Your task to perform on an android device: Open network settings Image 0: 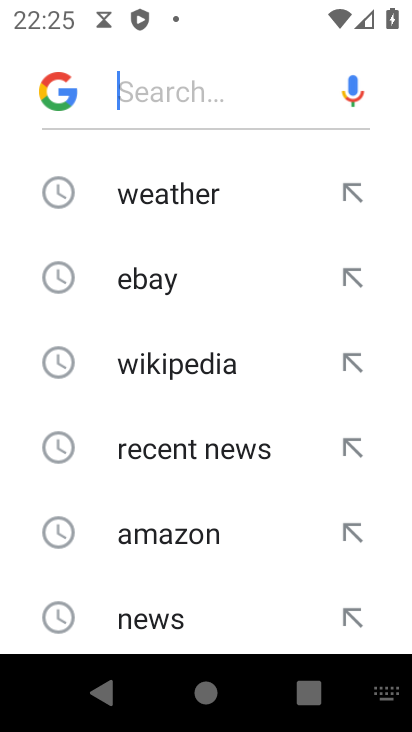
Step 0: press home button
Your task to perform on an android device: Open network settings Image 1: 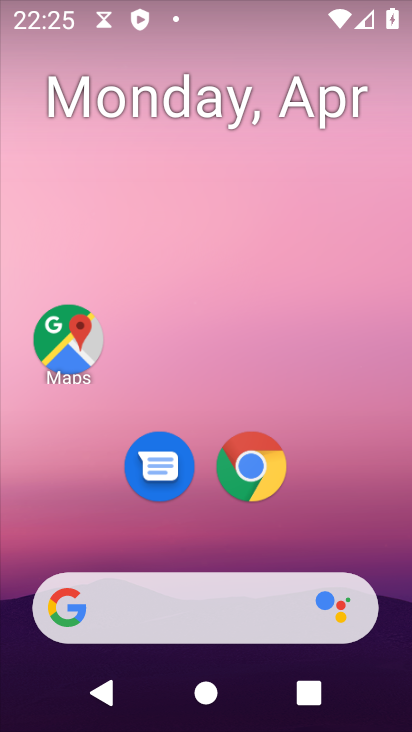
Step 1: drag from (315, 516) to (336, 163)
Your task to perform on an android device: Open network settings Image 2: 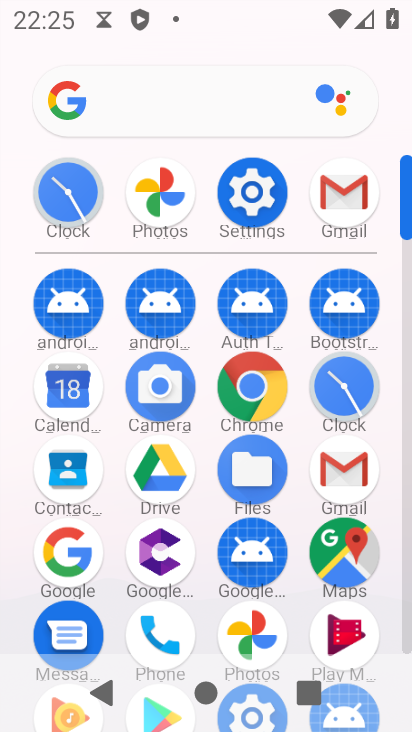
Step 2: click (246, 198)
Your task to perform on an android device: Open network settings Image 3: 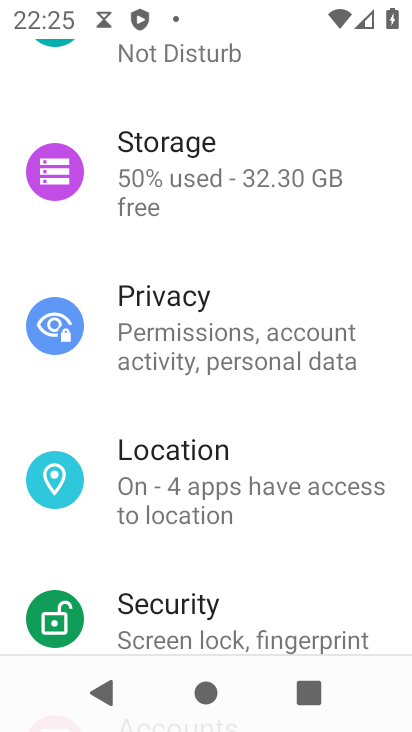
Step 3: drag from (202, 244) to (219, 446)
Your task to perform on an android device: Open network settings Image 4: 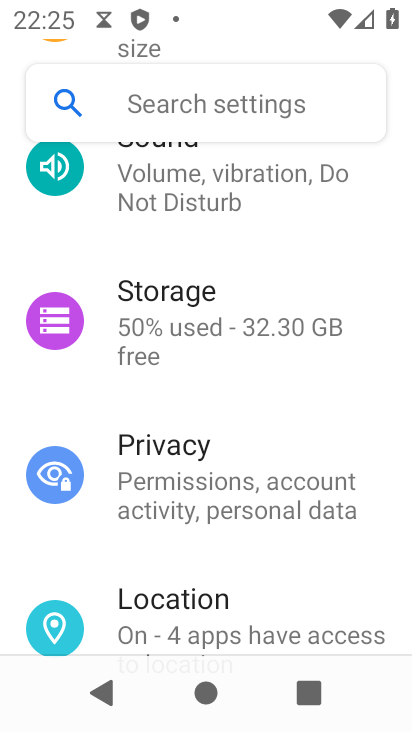
Step 4: drag from (198, 244) to (222, 521)
Your task to perform on an android device: Open network settings Image 5: 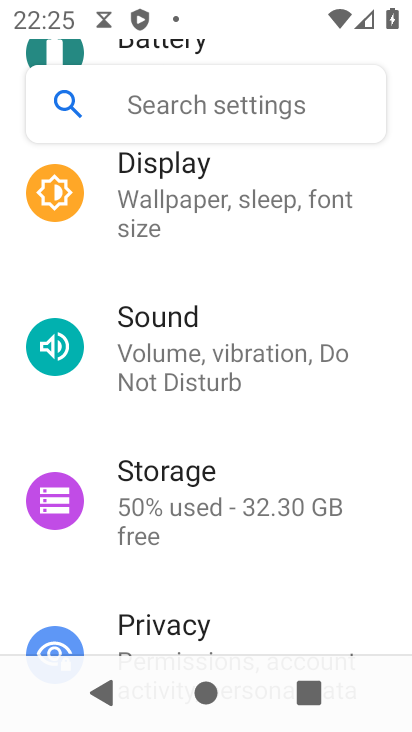
Step 5: drag from (192, 257) to (189, 556)
Your task to perform on an android device: Open network settings Image 6: 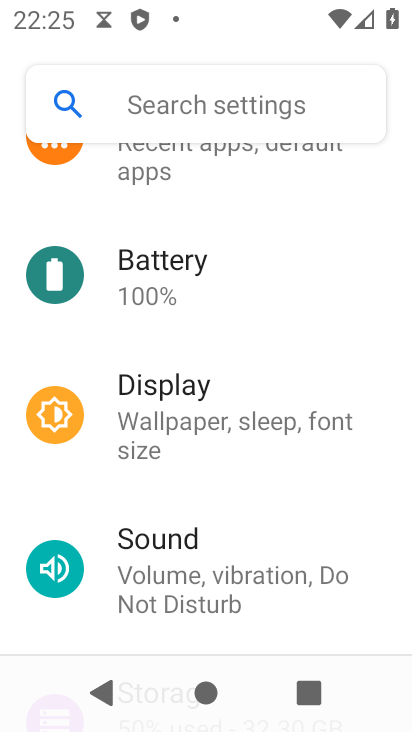
Step 6: drag from (182, 327) to (207, 594)
Your task to perform on an android device: Open network settings Image 7: 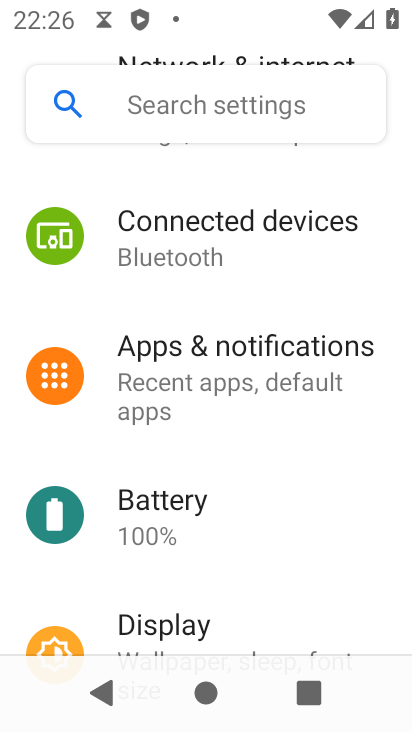
Step 7: drag from (252, 575) to (236, 238)
Your task to perform on an android device: Open network settings Image 8: 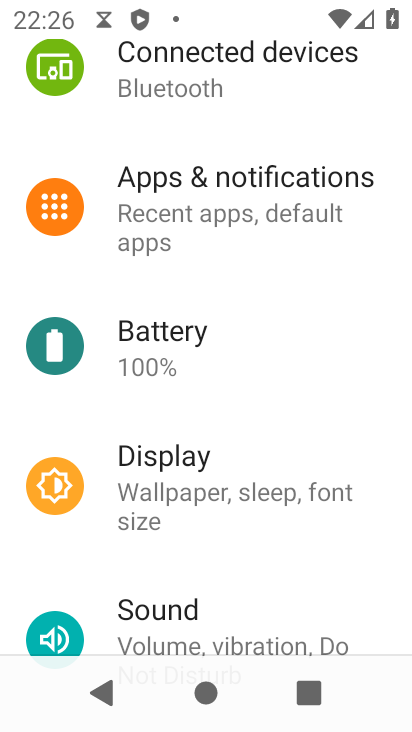
Step 8: drag from (218, 423) to (242, 187)
Your task to perform on an android device: Open network settings Image 9: 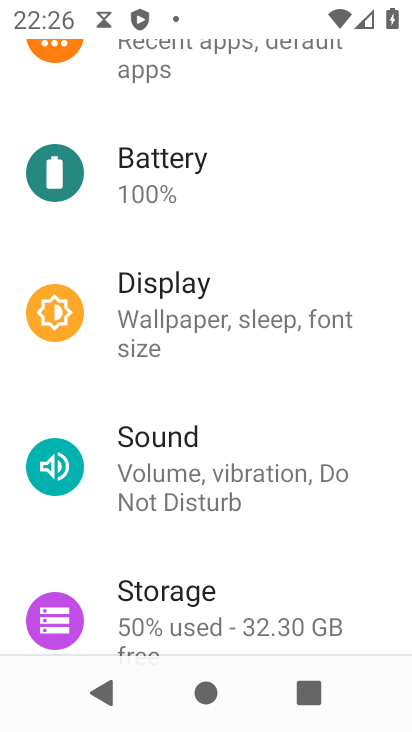
Step 9: drag from (194, 393) to (207, 149)
Your task to perform on an android device: Open network settings Image 10: 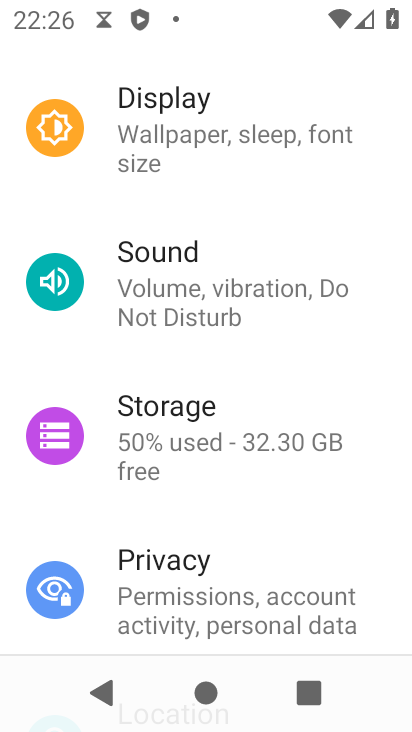
Step 10: drag from (173, 529) to (205, 229)
Your task to perform on an android device: Open network settings Image 11: 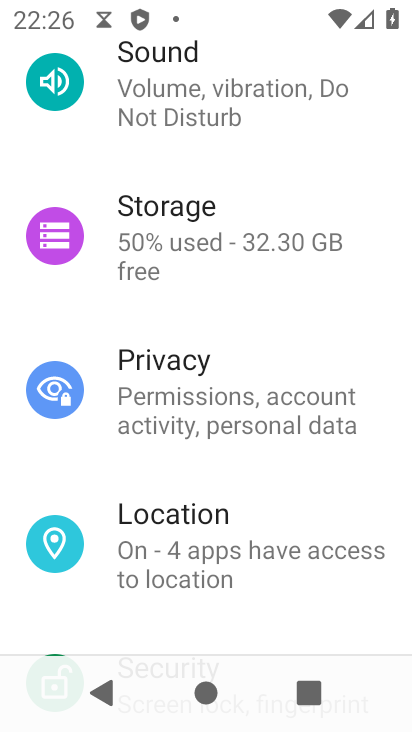
Step 11: drag from (168, 470) to (213, 197)
Your task to perform on an android device: Open network settings Image 12: 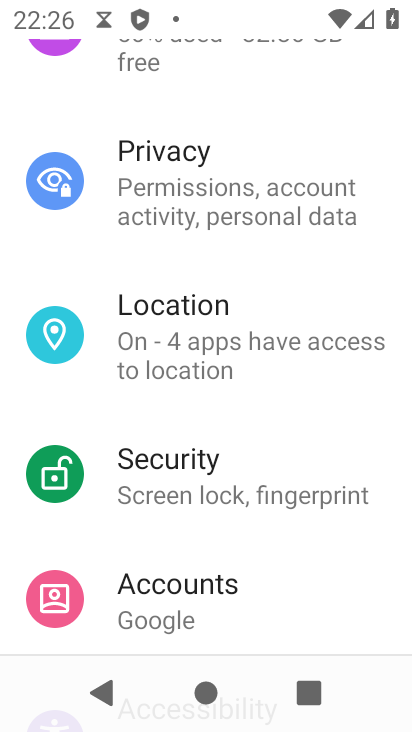
Step 12: drag from (202, 555) to (223, 242)
Your task to perform on an android device: Open network settings Image 13: 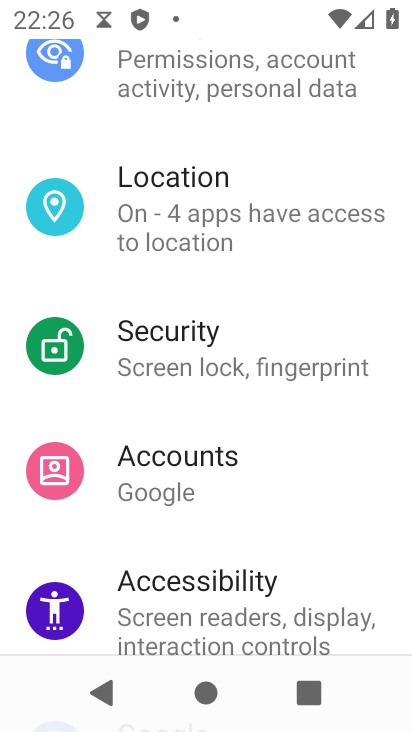
Step 13: drag from (198, 545) to (246, 221)
Your task to perform on an android device: Open network settings Image 14: 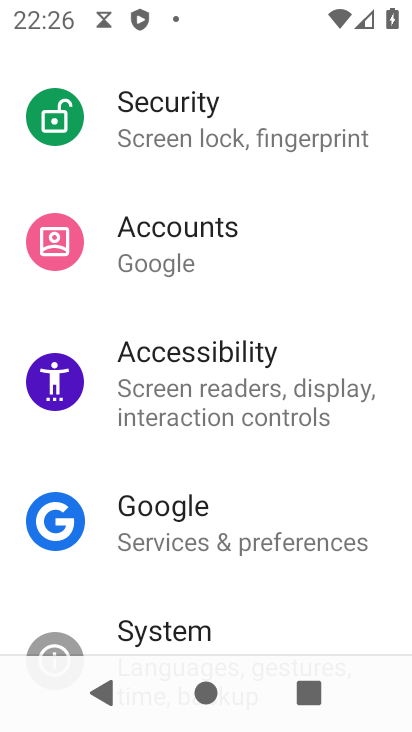
Step 14: drag from (218, 569) to (230, 237)
Your task to perform on an android device: Open network settings Image 15: 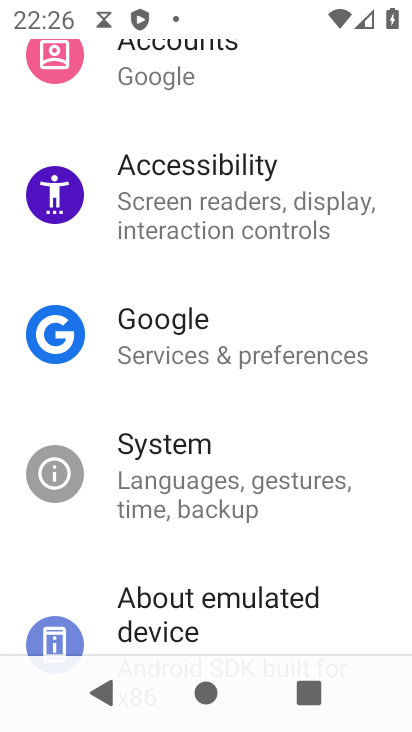
Step 15: drag from (220, 268) to (244, 607)
Your task to perform on an android device: Open network settings Image 16: 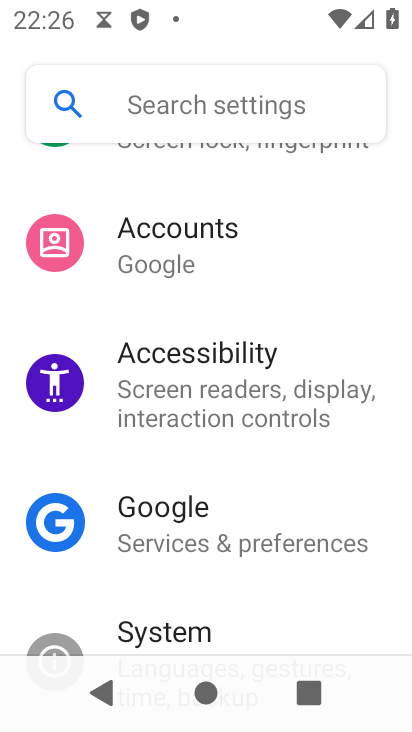
Step 16: drag from (232, 292) to (252, 591)
Your task to perform on an android device: Open network settings Image 17: 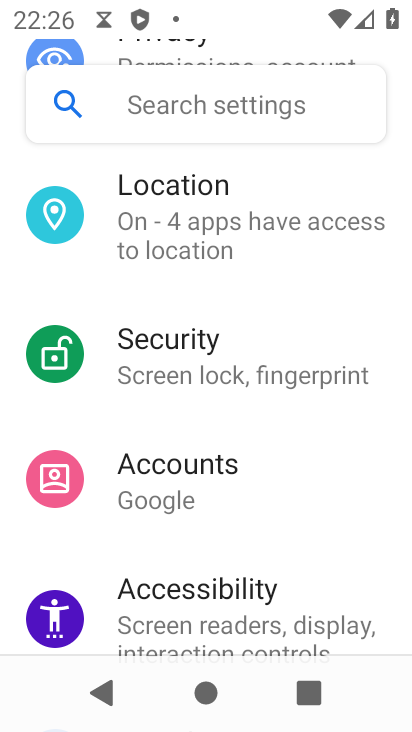
Step 17: drag from (227, 281) to (241, 580)
Your task to perform on an android device: Open network settings Image 18: 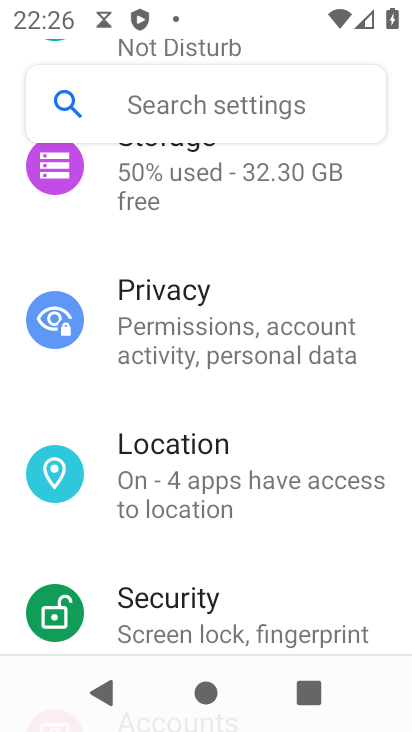
Step 18: drag from (200, 214) to (224, 531)
Your task to perform on an android device: Open network settings Image 19: 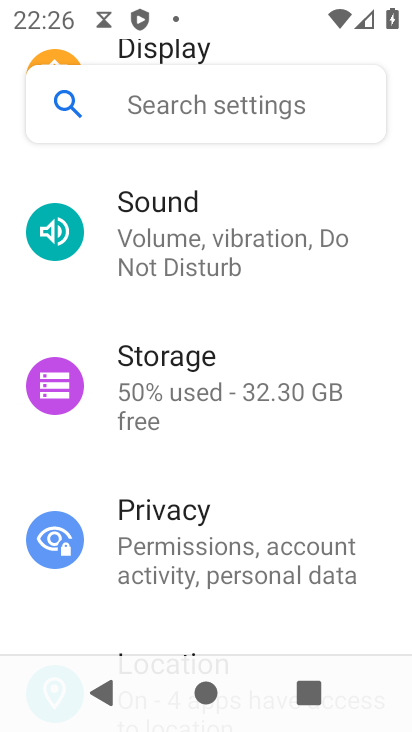
Step 19: drag from (174, 315) to (216, 595)
Your task to perform on an android device: Open network settings Image 20: 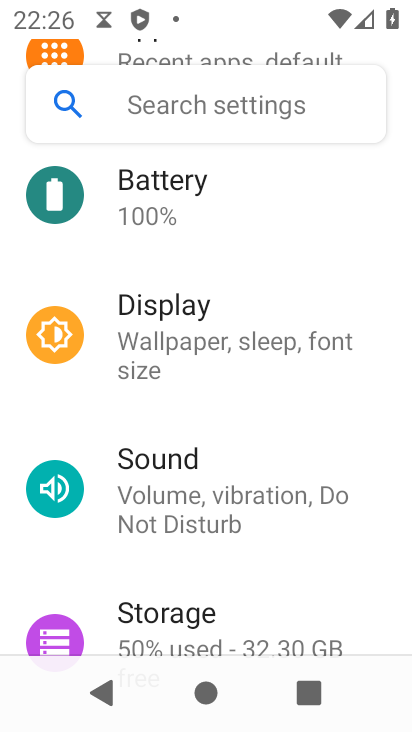
Step 20: drag from (184, 247) to (217, 609)
Your task to perform on an android device: Open network settings Image 21: 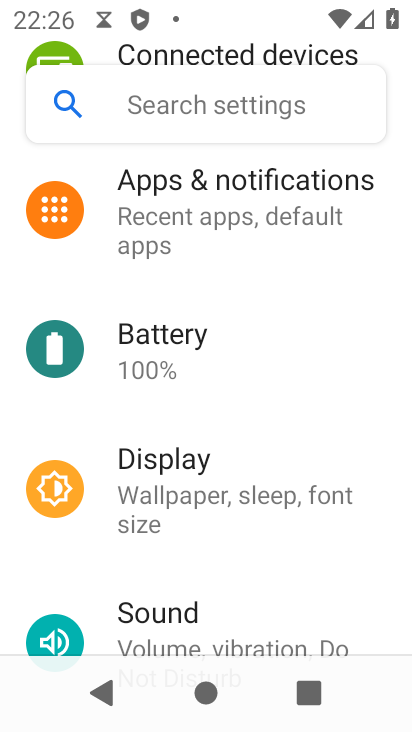
Step 21: drag from (200, 285) to (218, 619)
Your task to perform on an android device: Open network settings Image 22: 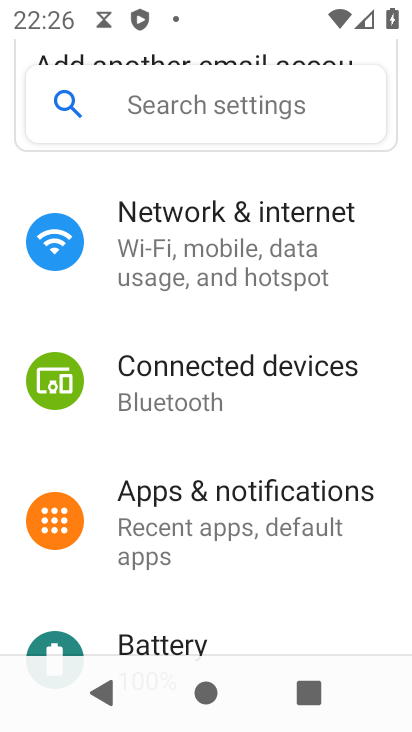
Step 22: click (213, 260)
Your task to perform on an android device: Open network settings Image 23: 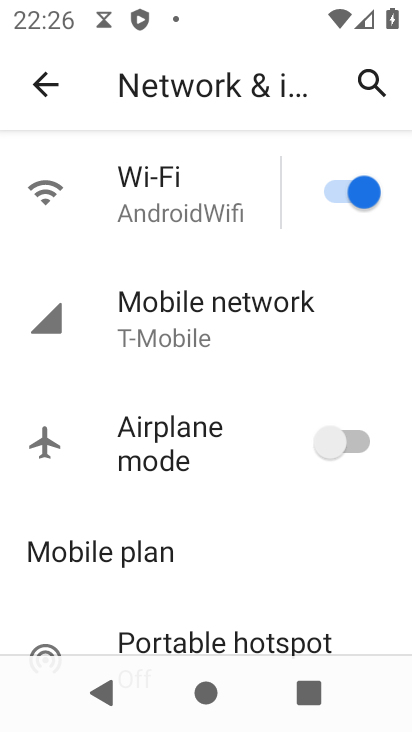
Step 23: click (207, 312)
Your task to perform on an android device: Open network settings Image 24: 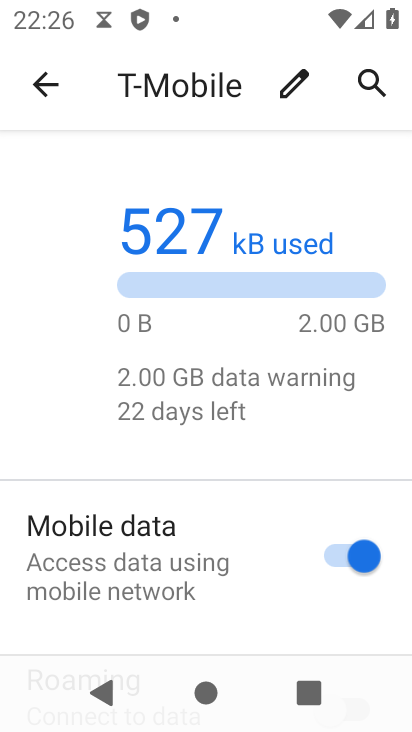
Step 24: task complete